Your task to perform on an android device: Open calendar and show me the second week of next month Image 0: 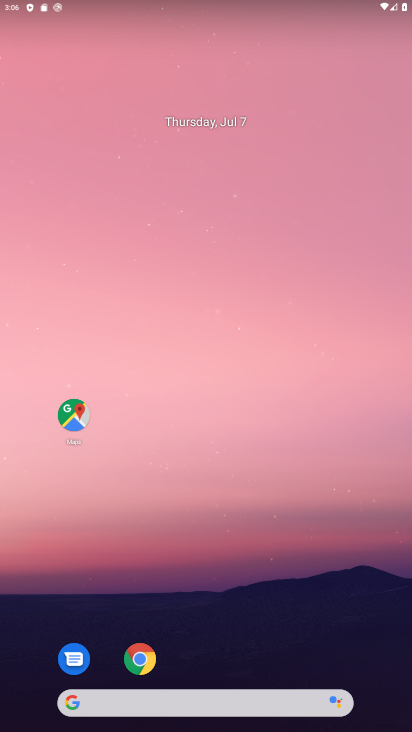
Step 0: drag from (235, 628) to (139, 255)
Your task to perform on an android device: Open calendar and show me the second week of next month Image 1: 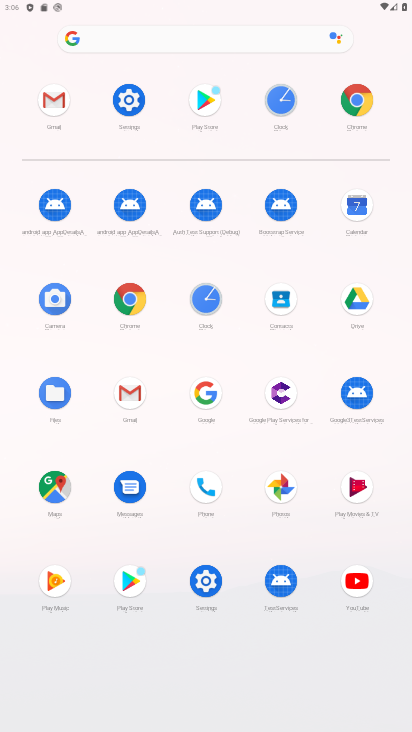
Step 1: click (364, 212)
Your task to perform on an android device: Open calendar and show me the second week of next month Image 2: 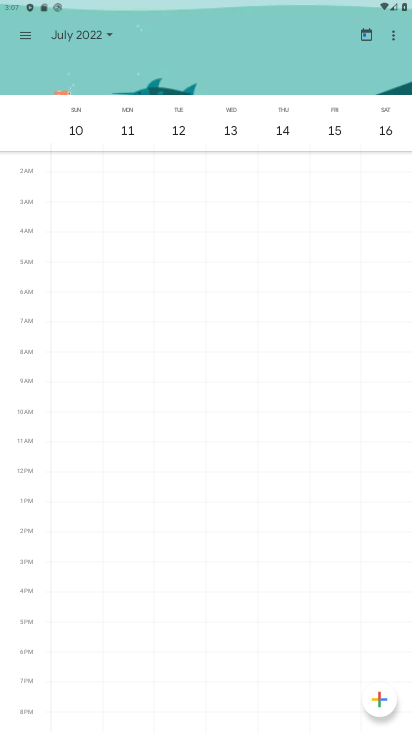
Step 2: click (87, 31)
Your task to perform on an android device: Open calendar and show me the second week of next month Image 3: 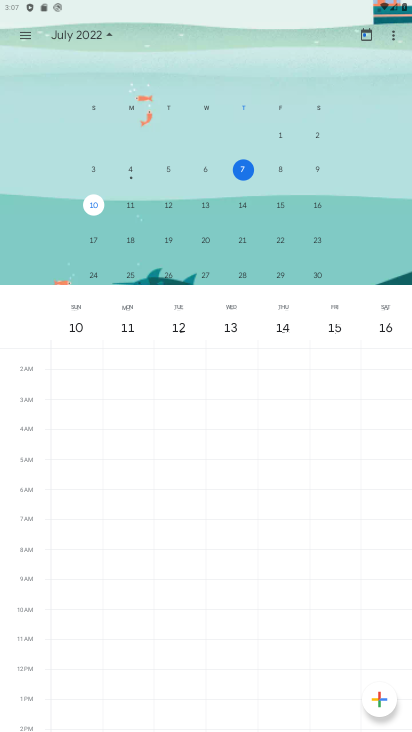
Step 3: drag from (320, 232) to (54, 204)
Your task to perform on an android device: Open calendar and show me the second week of next month Image 4: 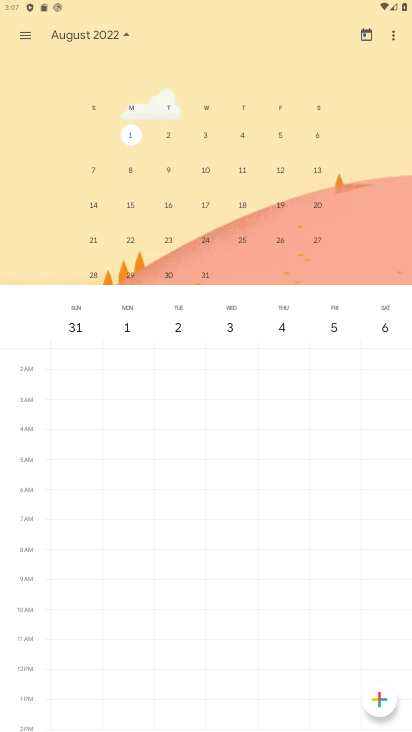
Step 4: click (207, 168)
Your task to perform on an android device: Open calendar and show me the second week of next month Image 5: 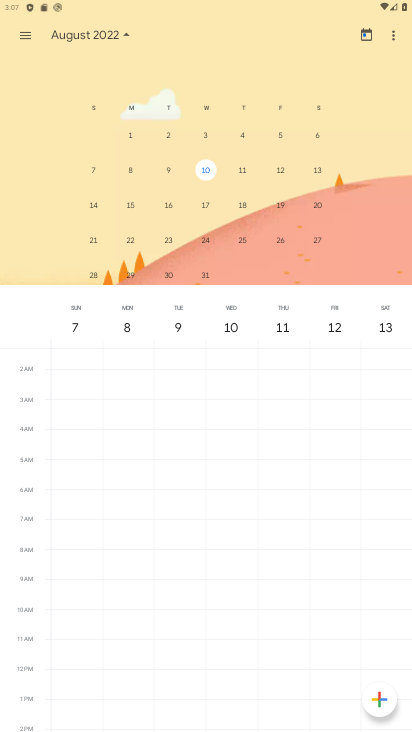
Step 5: task complete